Your task to perform on an android device: Open eBay Image 0: 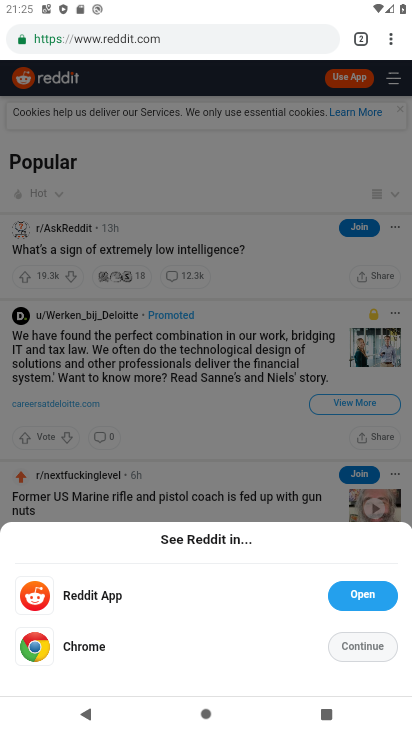
Step 0: press home button
Your task to perform on an android device: Open eBay Image 1: 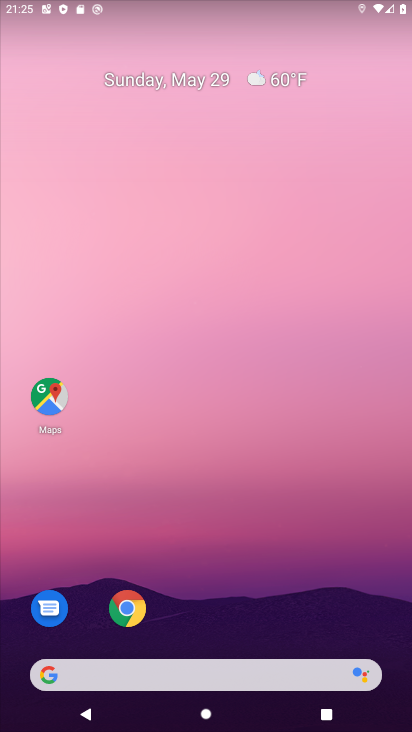
Step 1: drag from (362, 596) to (362, 149)
Your task to perform on an android device: Open eBay Image 2: 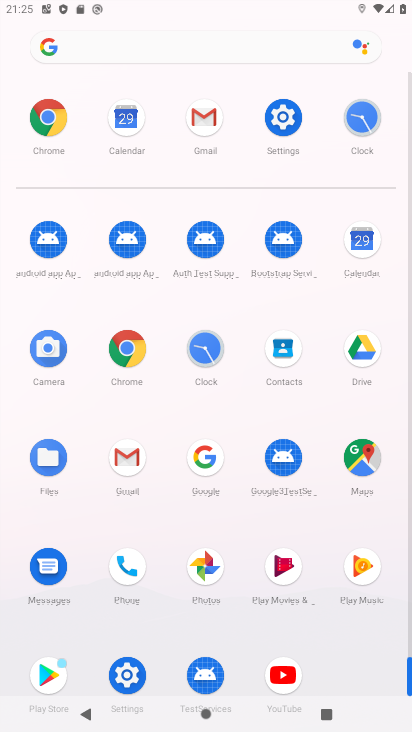
Step 2: click (135, 364)
Your task to perform on an android device: Open eBay Image 3: 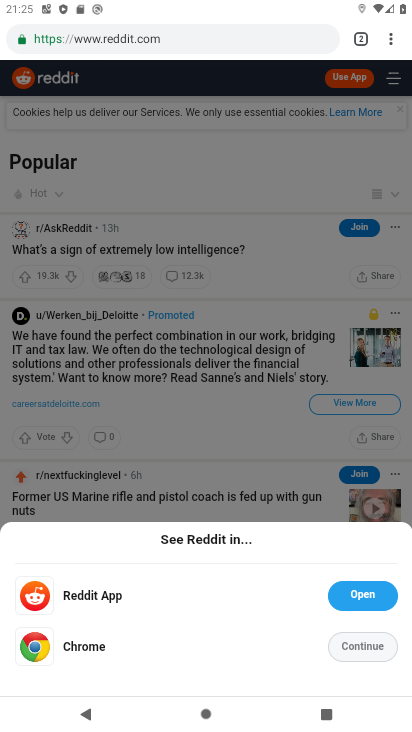
Step 3: click (207, 36)
Your task to perform on an android device: Open eBay Image 4: 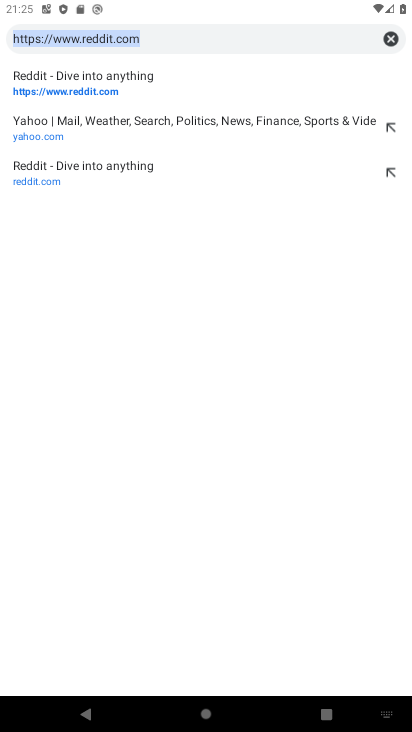
Step 4: click (392, 41)
Your task to perform on an android device: Open eBay Image 5: 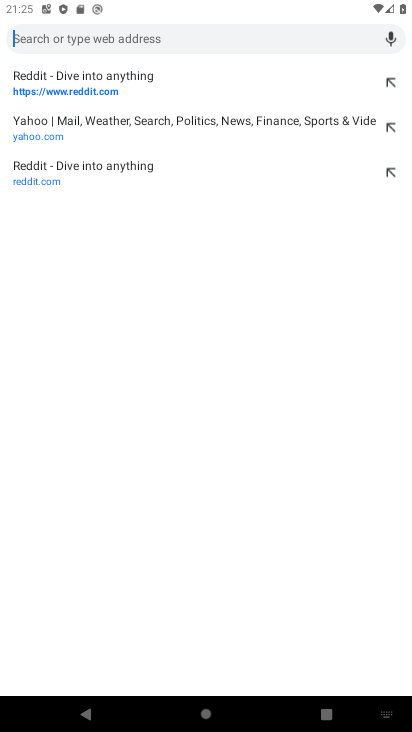
Step 5: type "ebay"
Your task to perform on an android device: Open eBay Image 6: 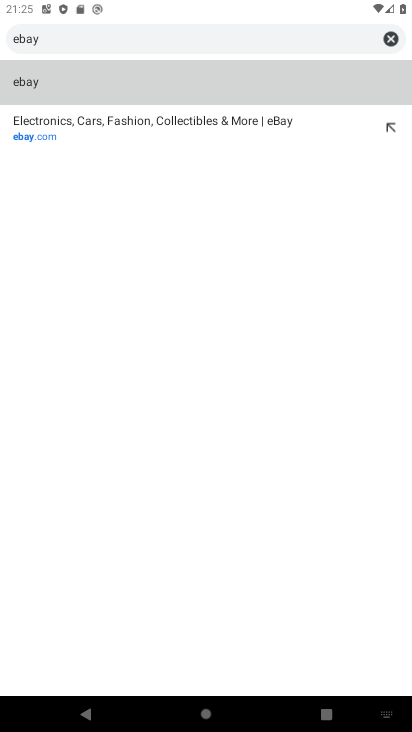
Step 6: click (184, 138)
Your task to perform on an android device: Open eBay Image 7: 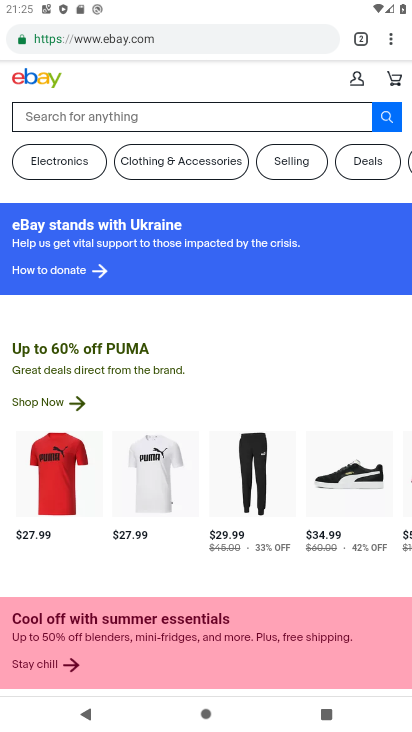
Step 7: task complete